Your task to perform on an android device: turn off sleep mode Image 0: 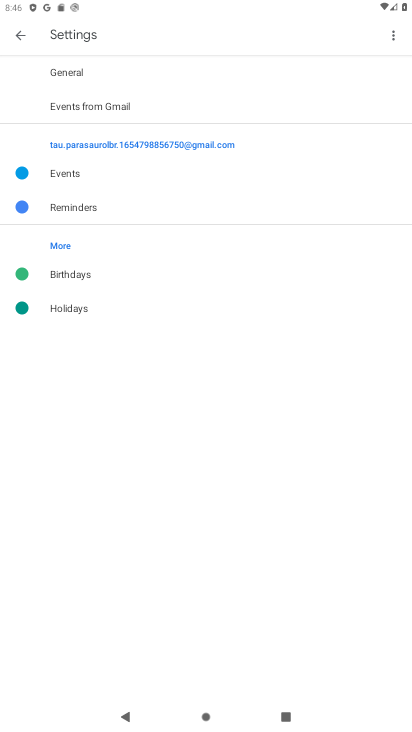
Step 0: press home button
Your task to perform on an android device: turn off sleep mode Image 1: 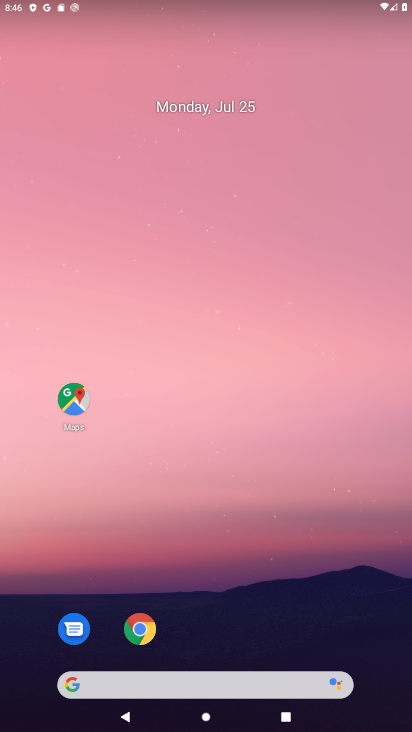
Step 1: click (277, 74)
Your task to perform on an android device: turn off sleep mode Image 2: 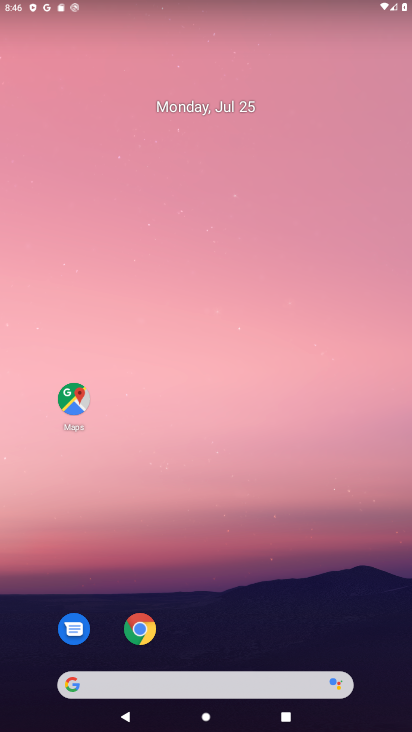
Step 2: drag from (215, 639) to (211, 193)
Your task to perform on an android device: turn off sleep mode Image 3: 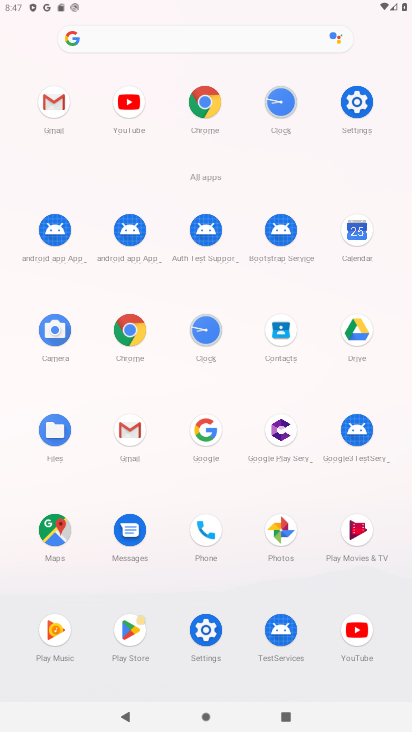
Step 3: click (353, 88)
Your task to perform on an android device: turn off sleep mode Image 4: 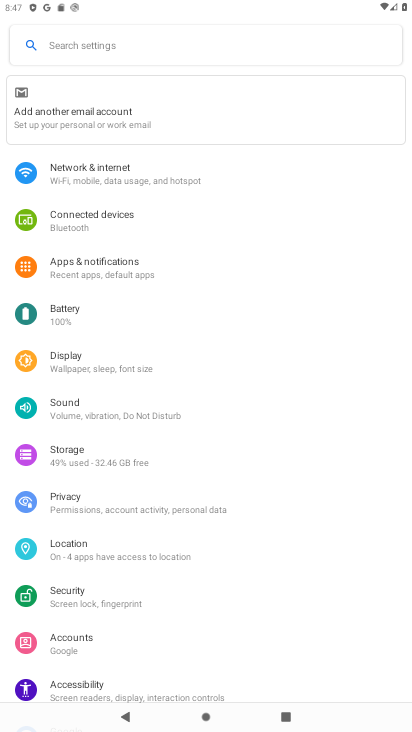
Step 4: task complete